Your task to perform on an android device: Open Reddit.com Image 0: 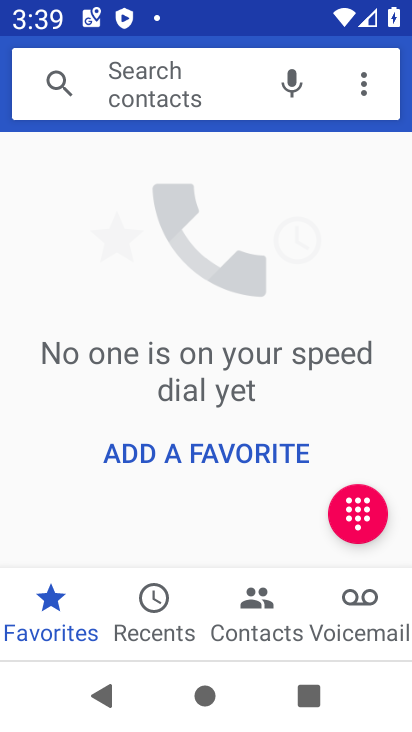
Step 0: press back button
Your task to perform on an android device: Open Reddit.com Image 1: 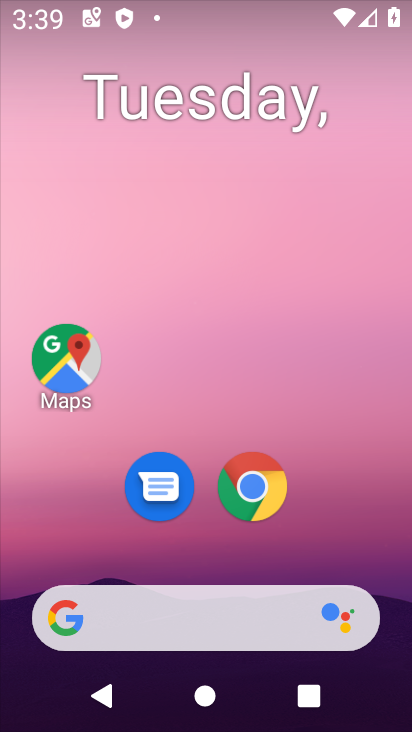
Step 1: click (268, 485)
Your task to perform on an android device: Open Reddit.com Image 2: 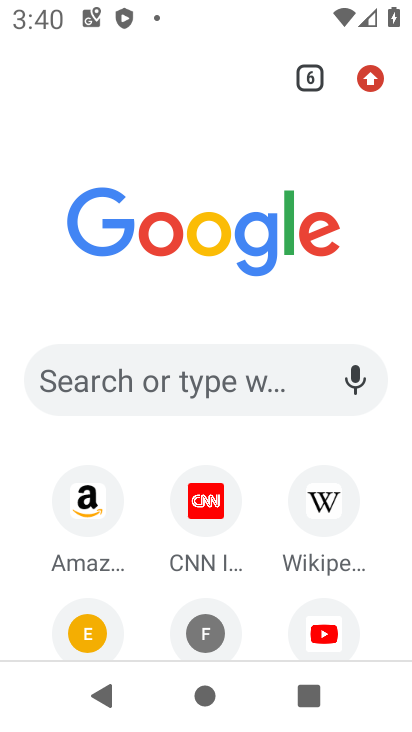
Step 2: click (139, 376)
Your task to perform on an android device: Open Reddit.com Image 3: 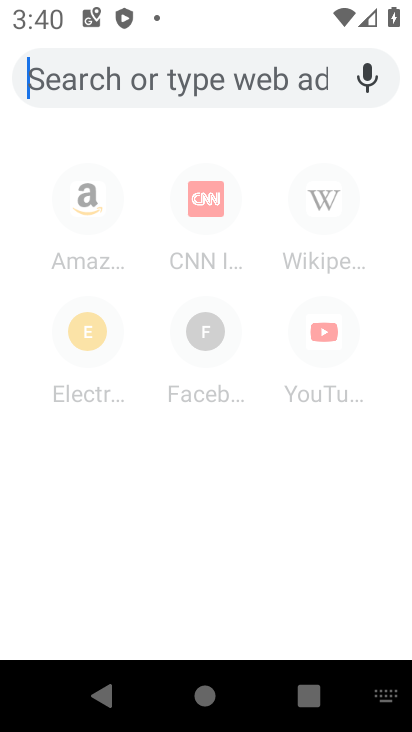
Step 3: type "reddit.com"
Your task to perform on an android device: Open Reddit.com Image 4: 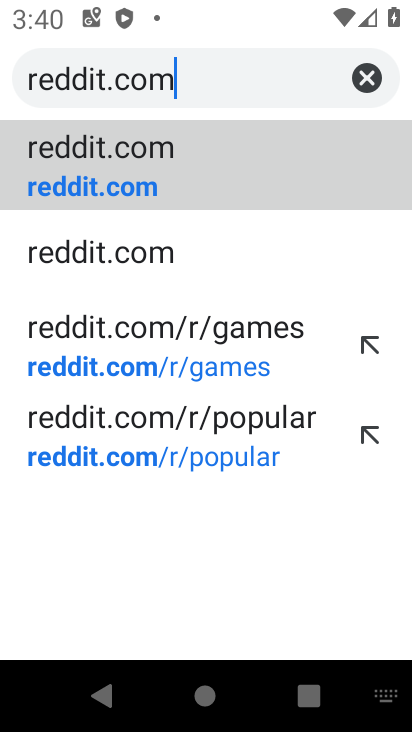
Step 4: click (157, 178)
Your task to perform on an android device: Open Reddit.com Image 5: 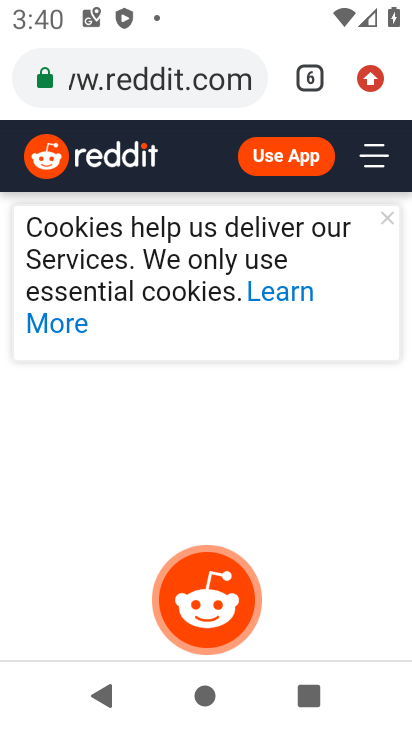
Step 5: task complete